Your task to perform on an android device: check storage Image 0: 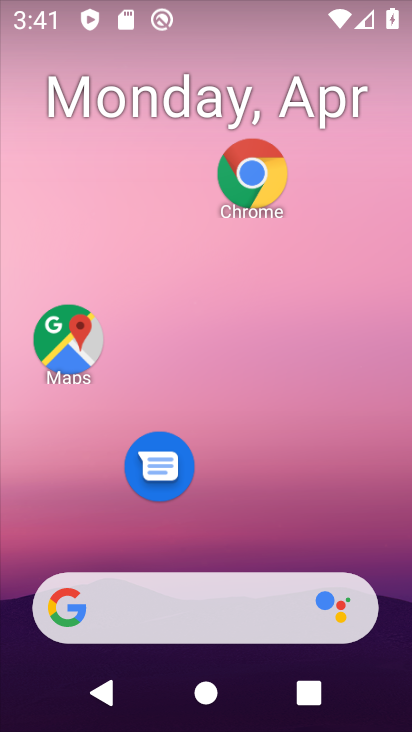
Step 0: drag from (309, 560) to (283, 60)
Your task to perform on an android device: check storage Image 1: 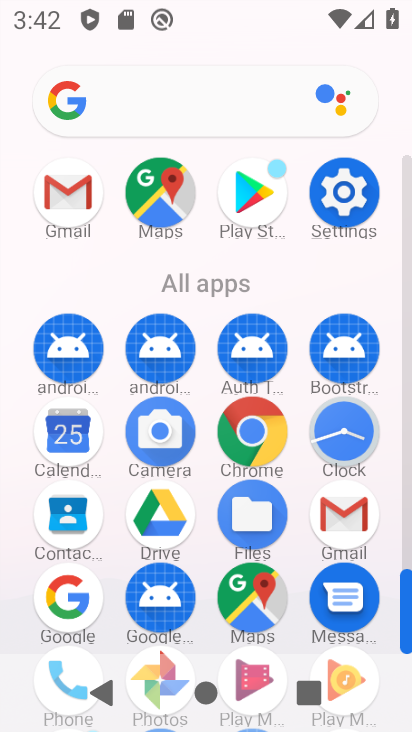
Step 1: click (331, 170)
Your task to perform on an android device: check storage Image 2: 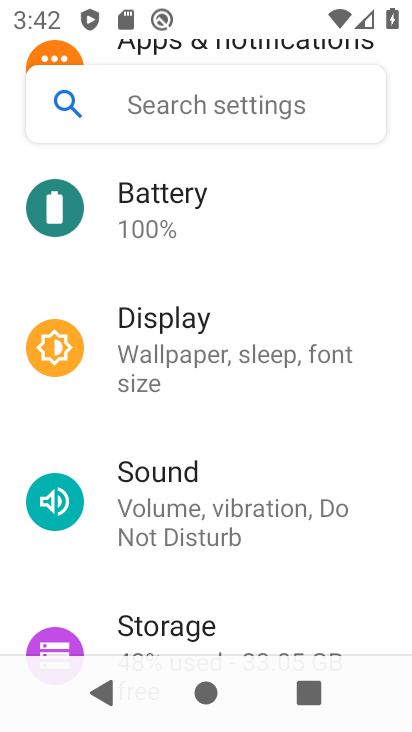
Step 2: drag from (331, 170) to (293, 639)
Your task to perform on an android device: check storage Image 3: 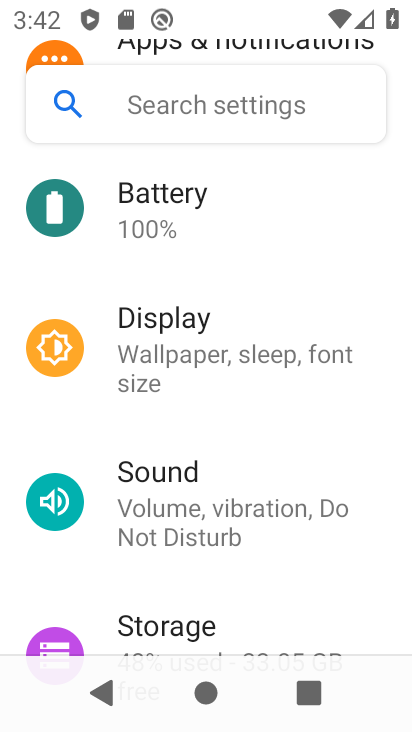
Step 3: click (192, 623)
Your task to perform on an android device: check storage Image 4: 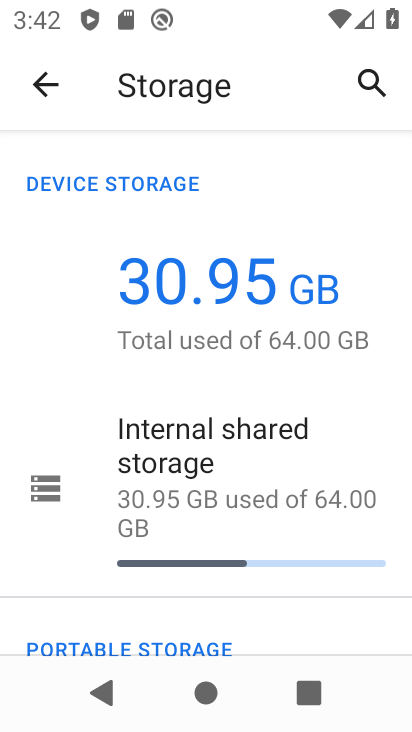
Step 4: task complete